Your task to perform on an android device: open app "Firefox Browser" Image 0: 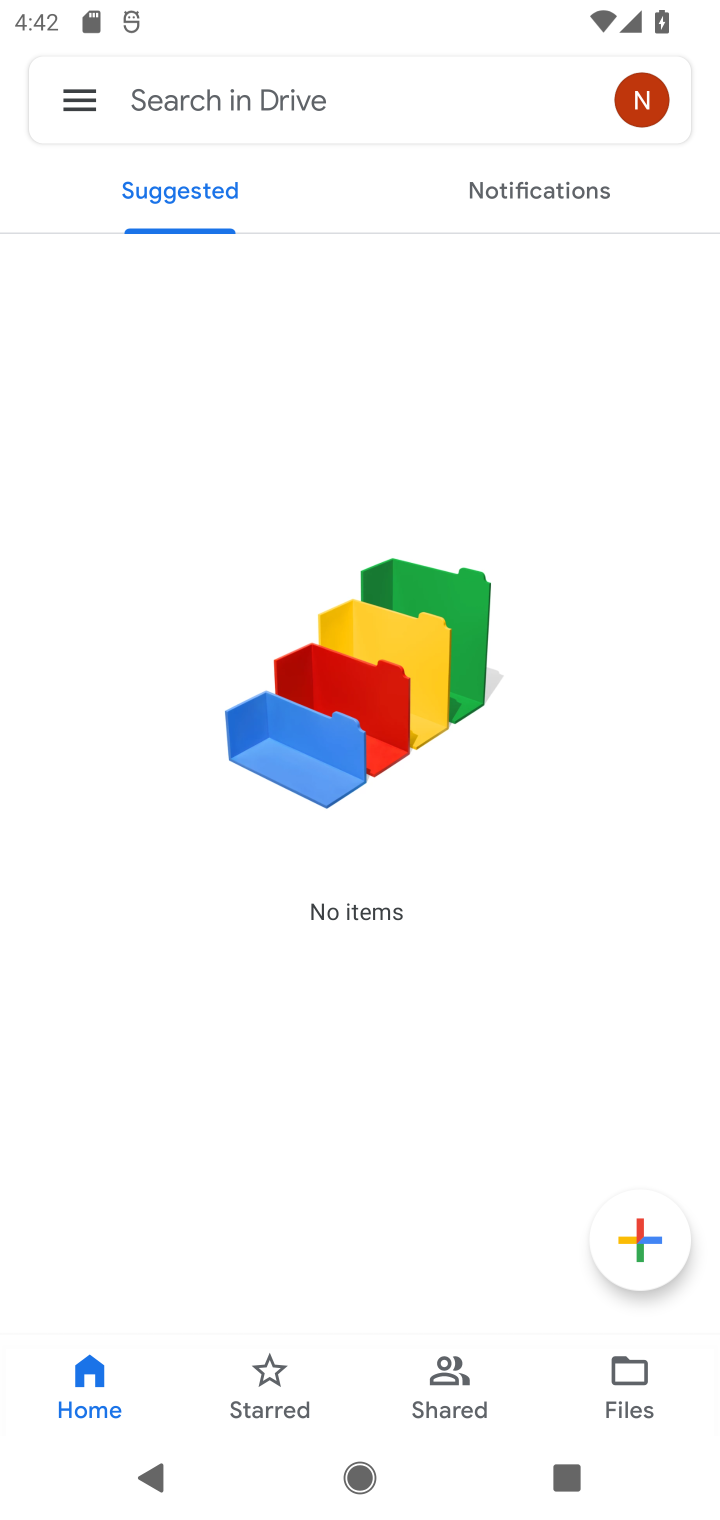
Step 0: press home button
Your task to perform on an android device: open app "Firefox Browser" Image 1: 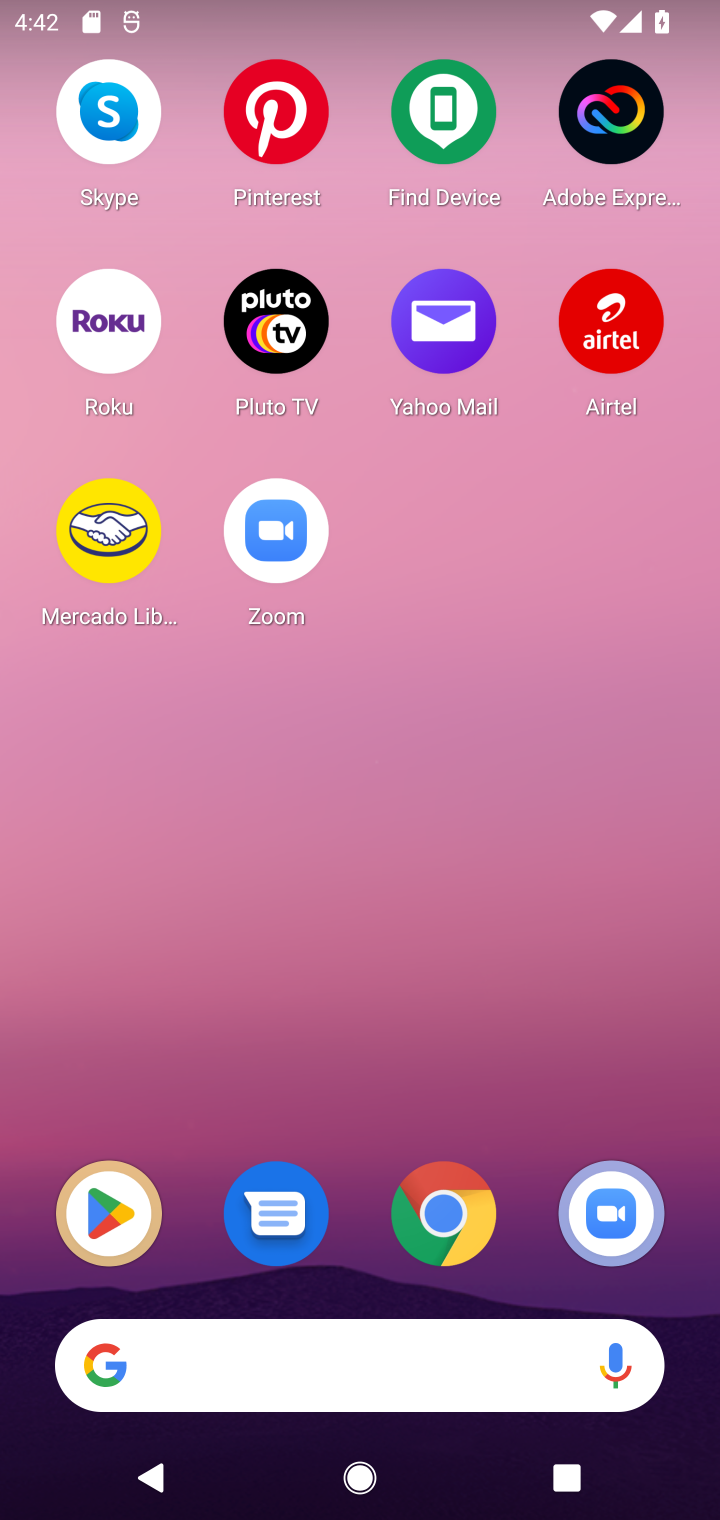
Step 1: drag from (571, 1045) to (629, 355)
Your task to perform on an android device: open app "Firefox Browser" Image 2: 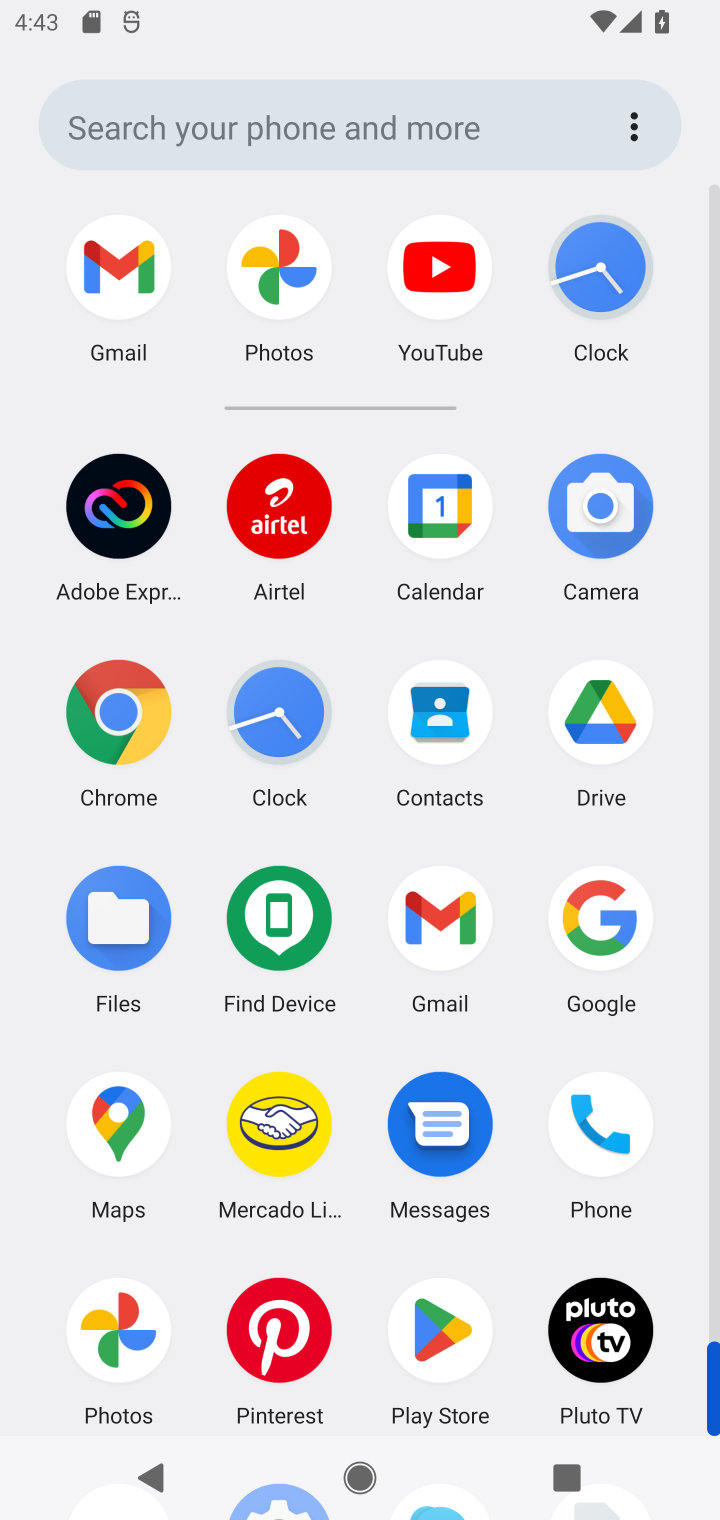
Step 2: click (421, 1323)
Your task to perform on an android device: open app "Firefox Browser" Image 3: 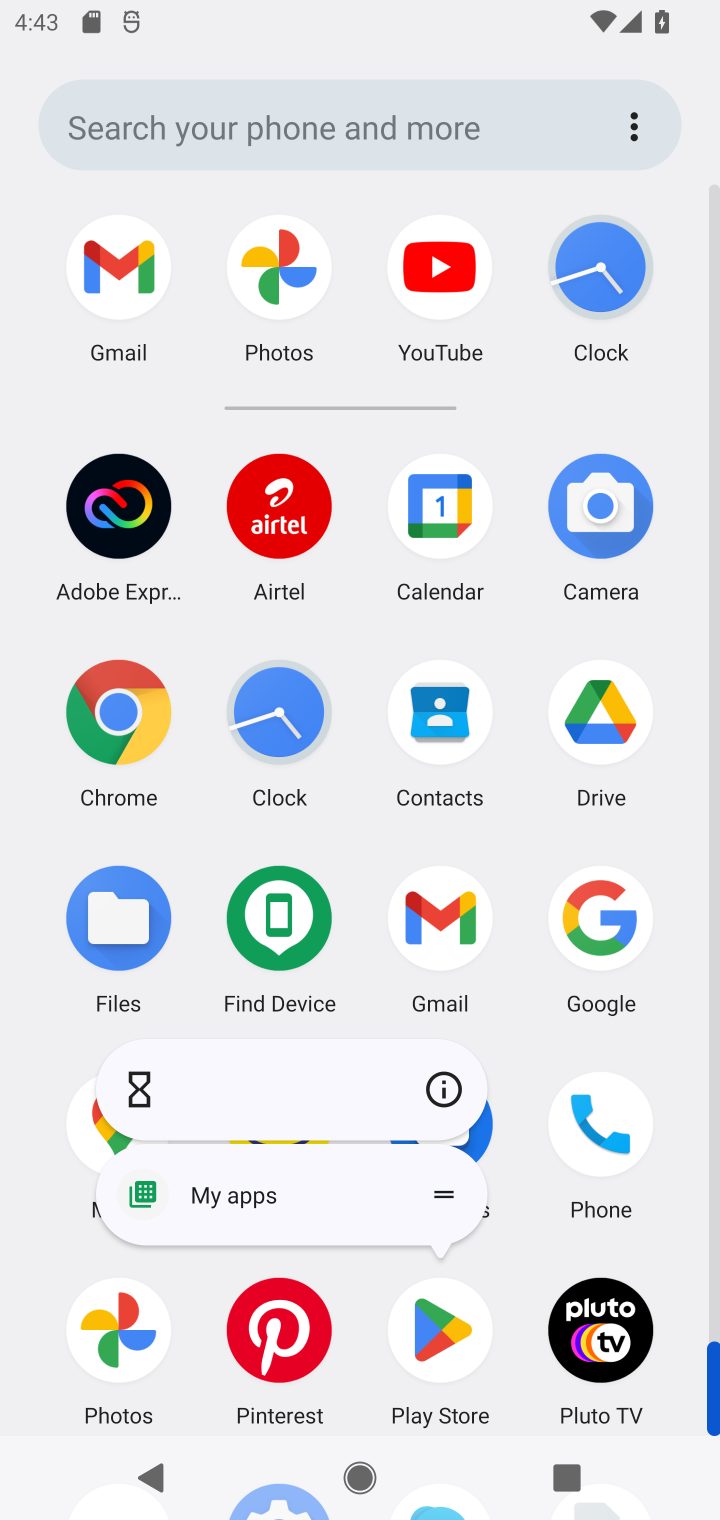
Step 3: click (459, 1329)
Your task to perform on an android device: open app "Firefox Browser" Image 4: 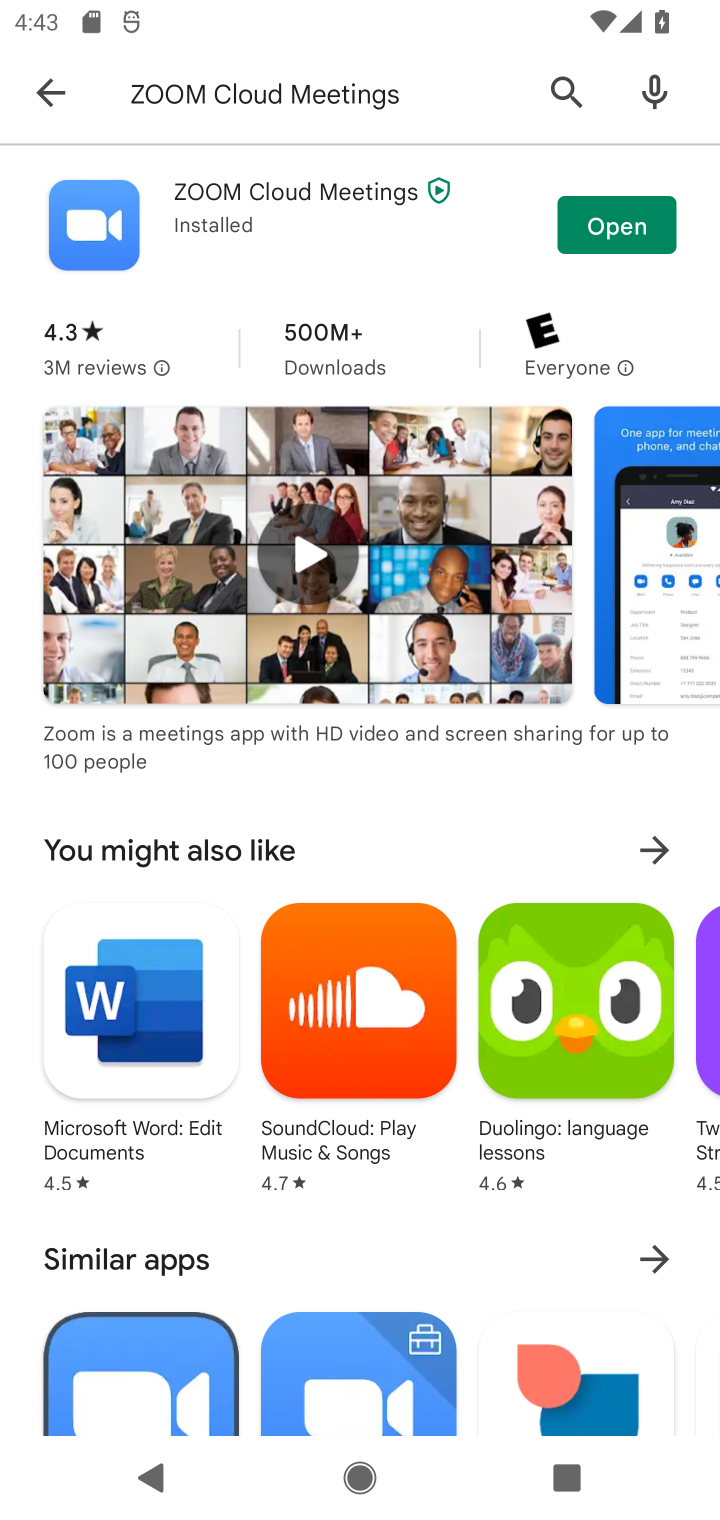
Step 4: click (263, 86)
Your task to perform on an android device: open app "Firefox Browser" Image 5: 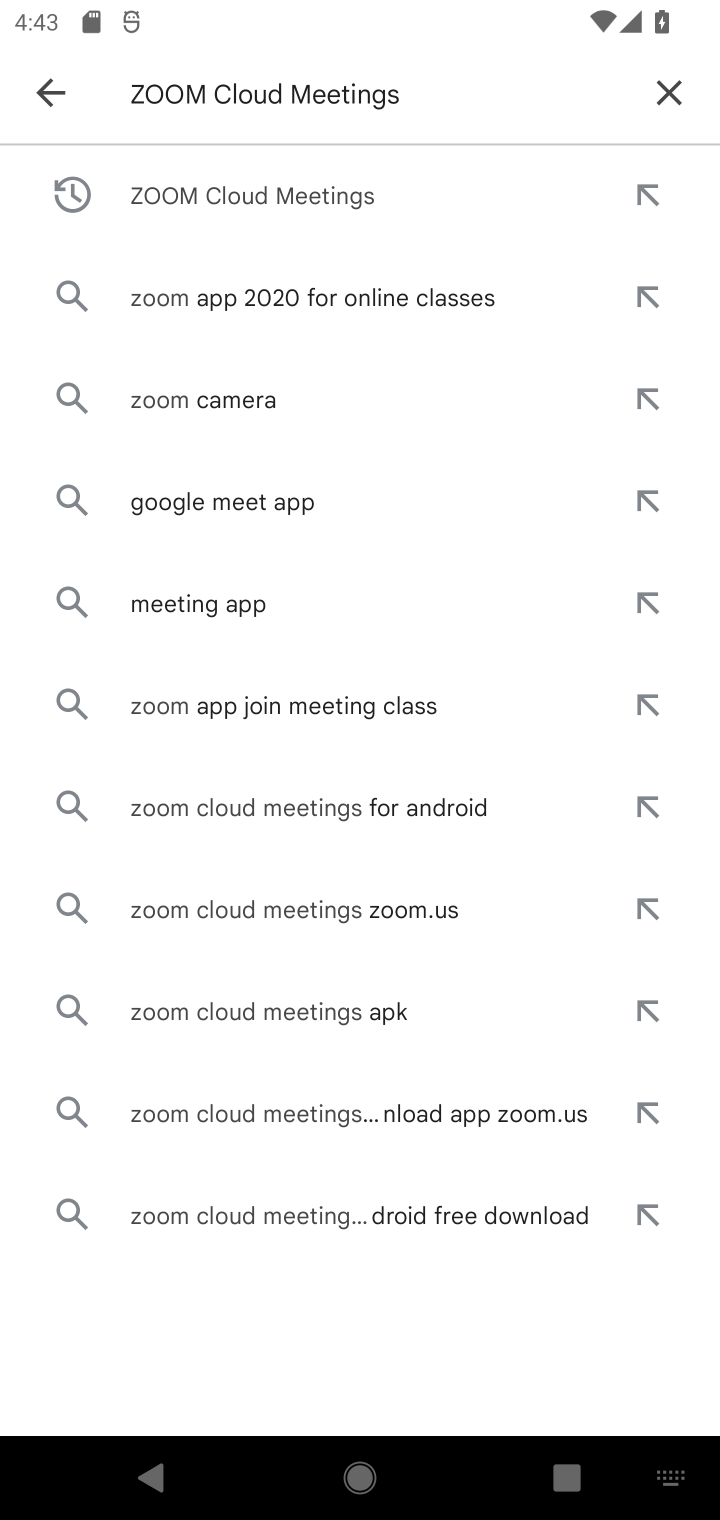
Step 5: click (659, 89)
Your task to perform on an android device: open app "Firefox Browser" Image 6: 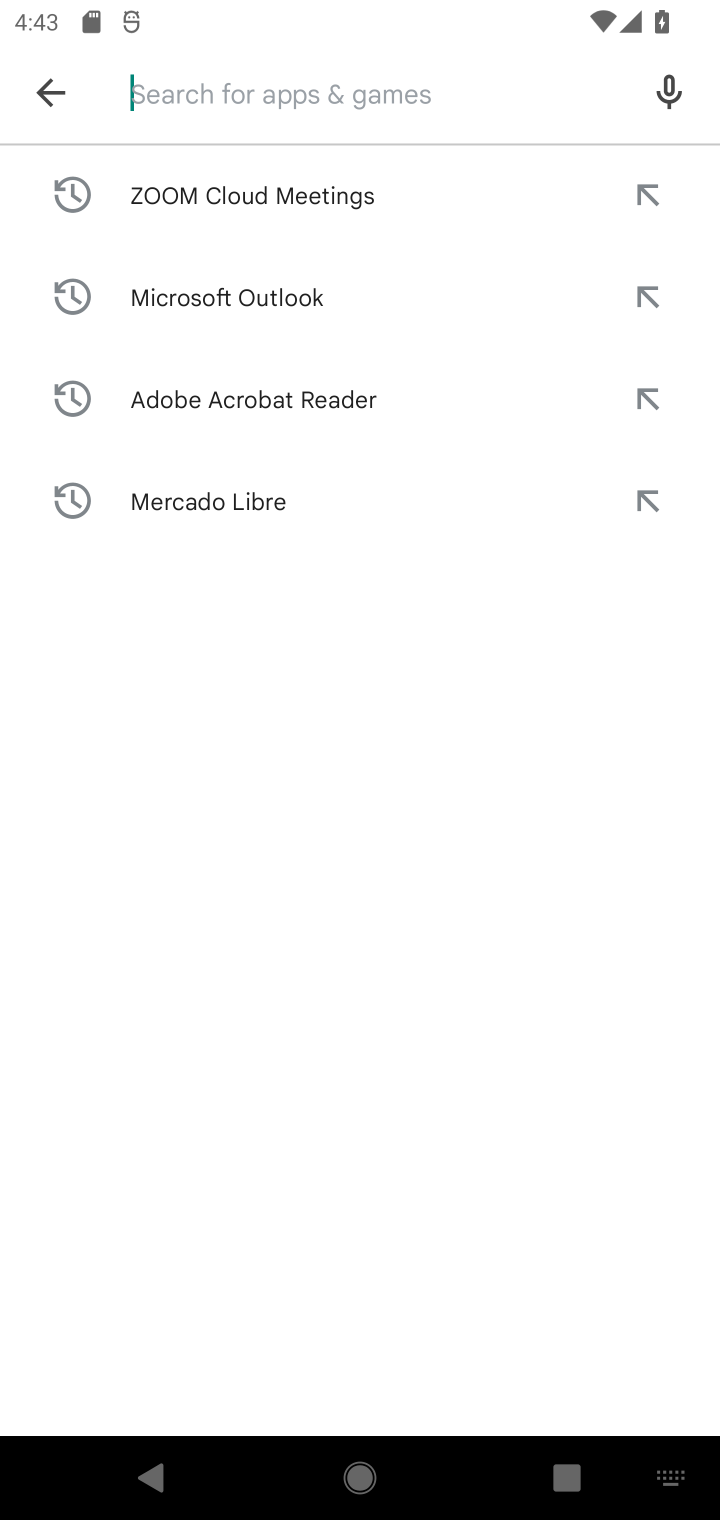
Step 6: type "Yahoo Browser"
Your task to perform on an android device: open app "Firefox Browser" Image 7: 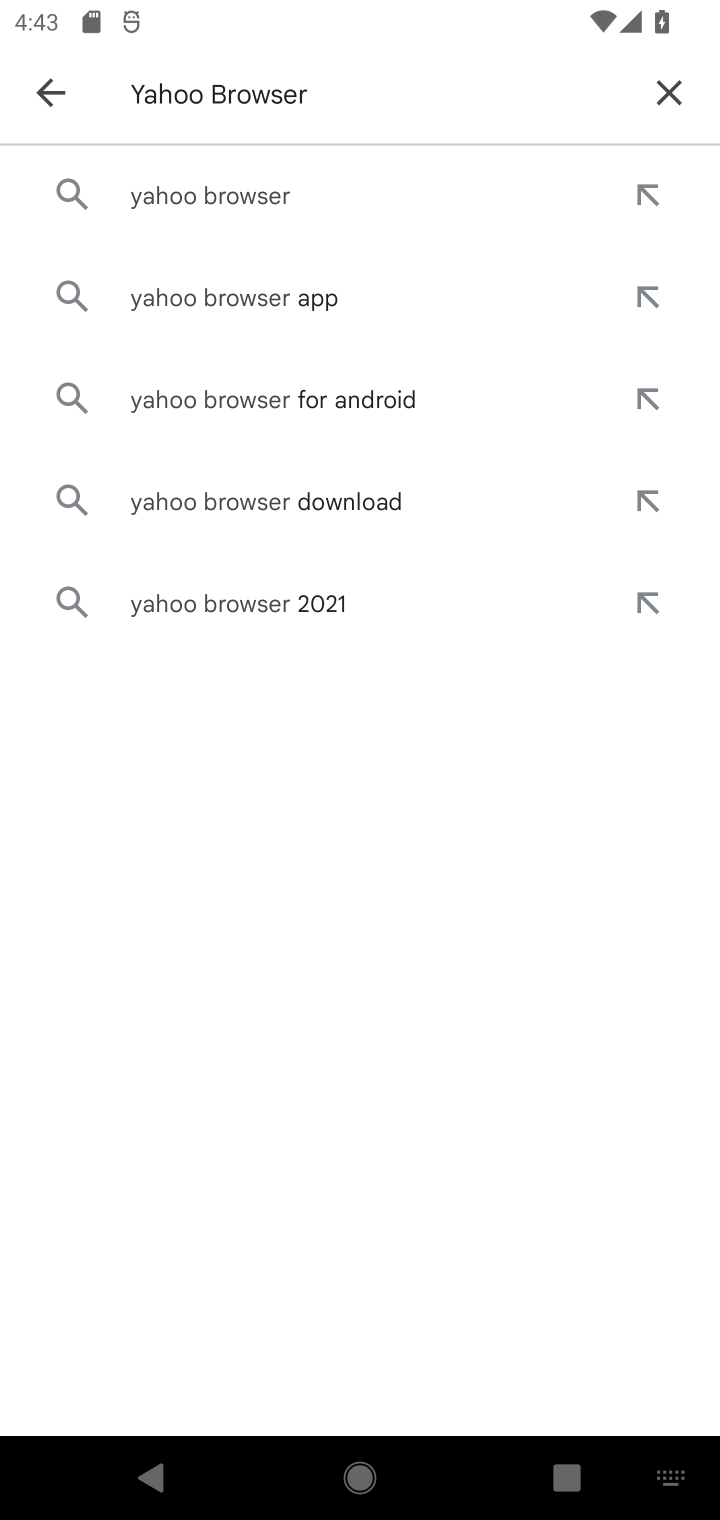
Step 7: press enter
Your task to perform on an android device: open app "Firefox Browser" Image 8: 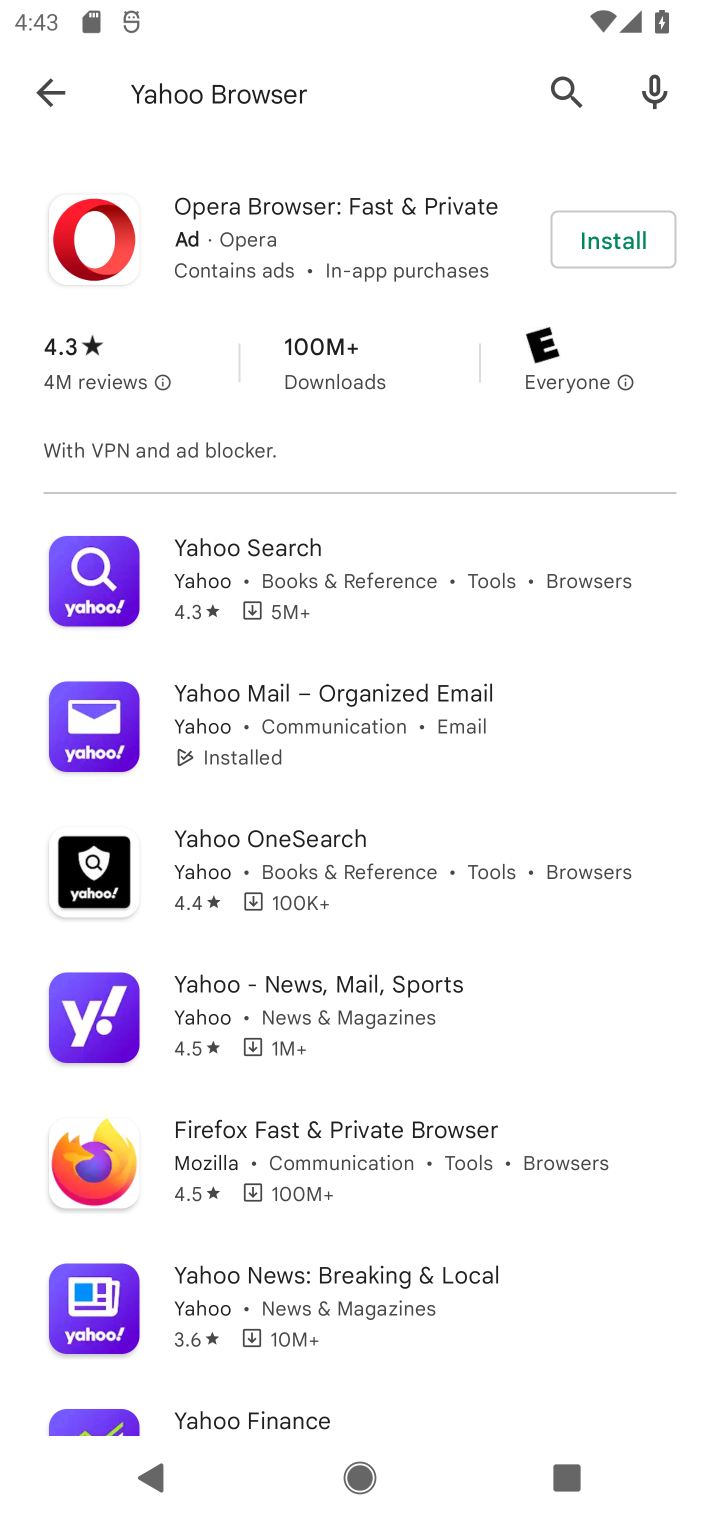
Step 8: click (220, 223)
Your task to perform on an android device: open app "Firefox Browser" Image 9: 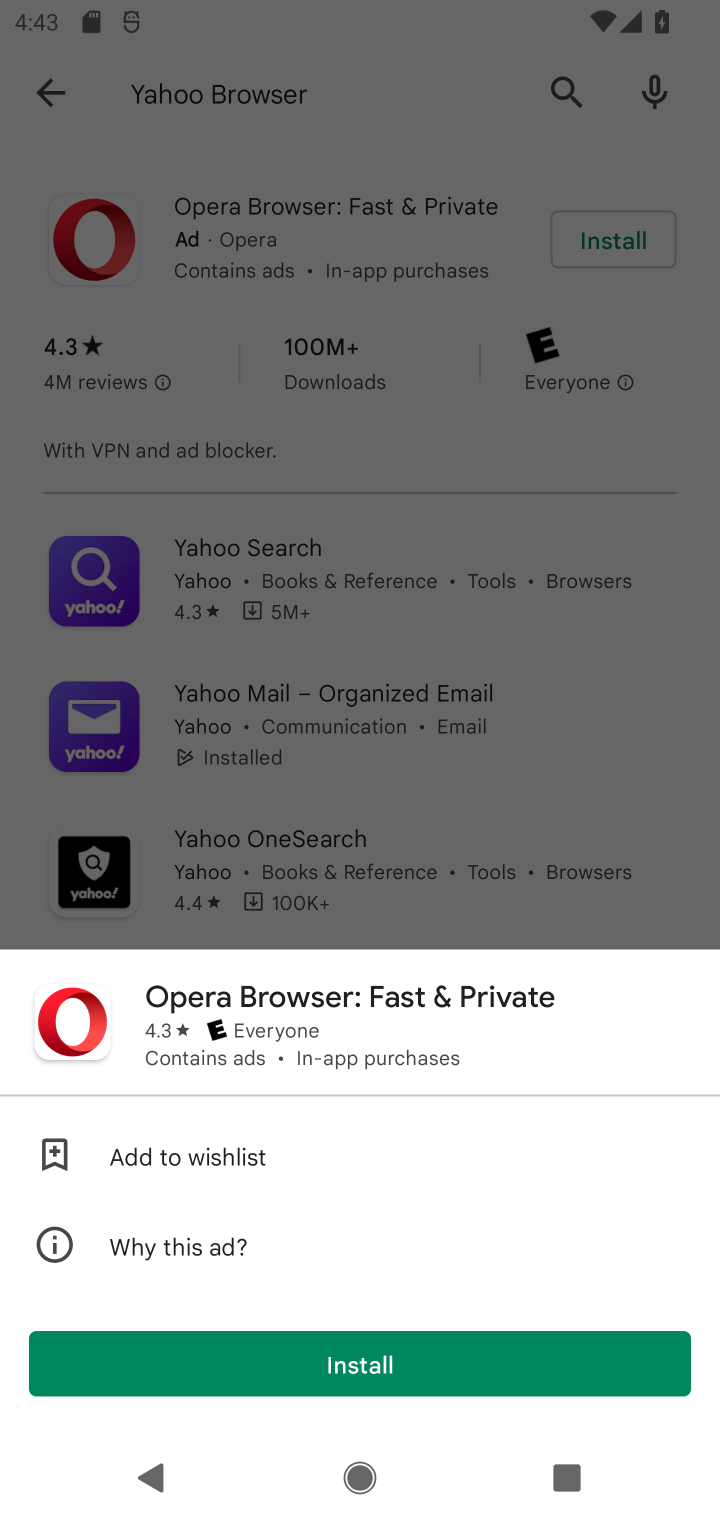
Step 9: task complete